Your task to perform on an android device: turn off sleep mode Image 0: 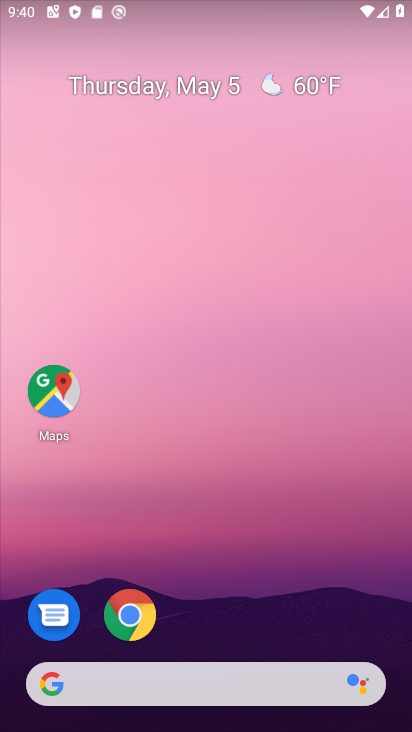
Step 0: drag from (235, 604) to (279, 69)
Your task to perform on an android device: turn off sleep mode Image 1: 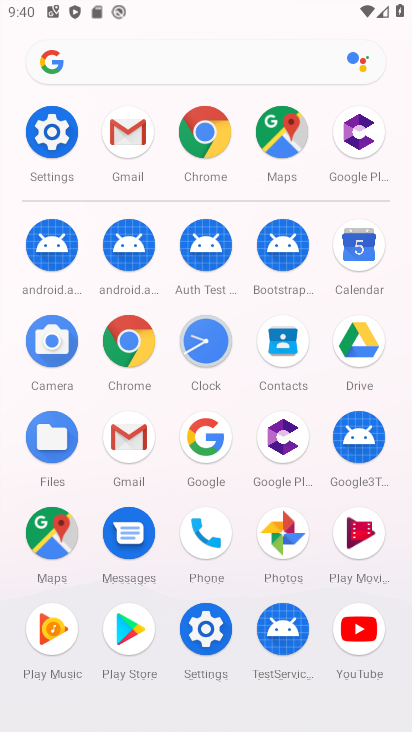
Step 1: click (49, 132)
Your task to perform on an android device: turn off sleep mode Image 2: 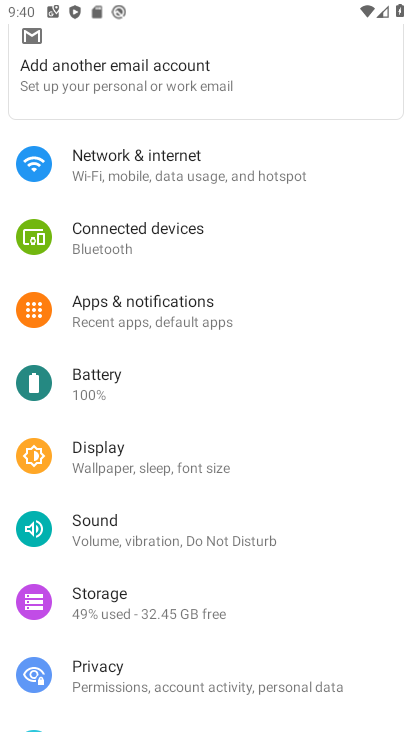
Step 2: click (117, 453)
Your task to perform on an android device: turn off sleep mode Image 3: 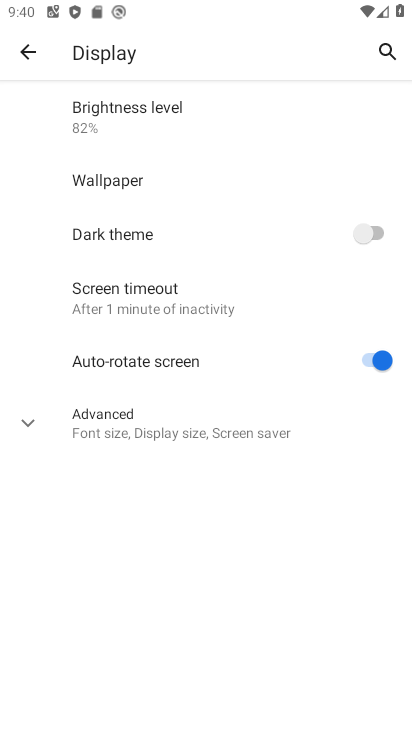
Step 3: click (156, 312)
Your task to perform on an android device: turn off sleep mode Image 4: 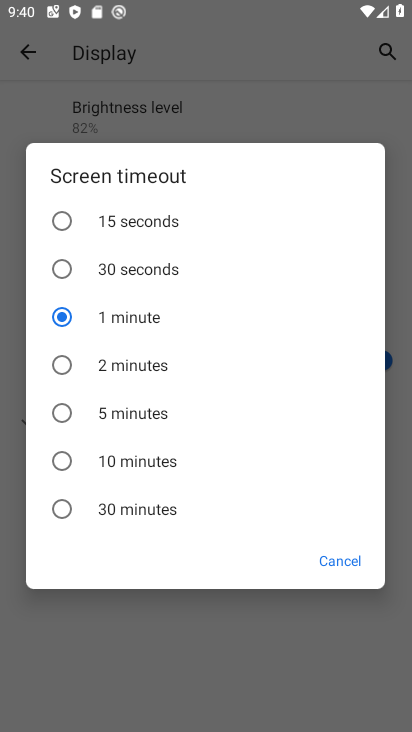
Step 4: click (335, 562)
Your task to perform on an android device: turn off sleep mode Image 5: 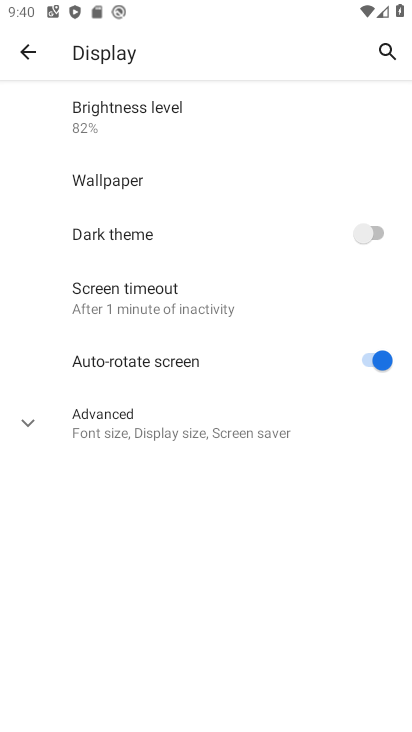
Step 5: click (172, 431)
Your task to perform on an android device: turn off sleep mode Image 6: 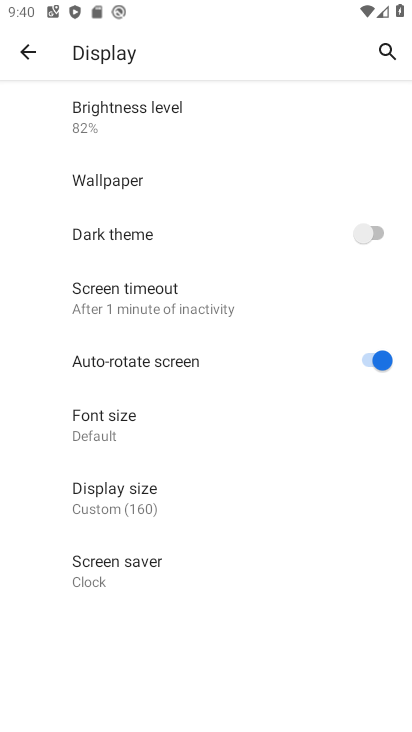
Step 6: task complete